Your task to perform on an android device: Go to location settings Image 0: 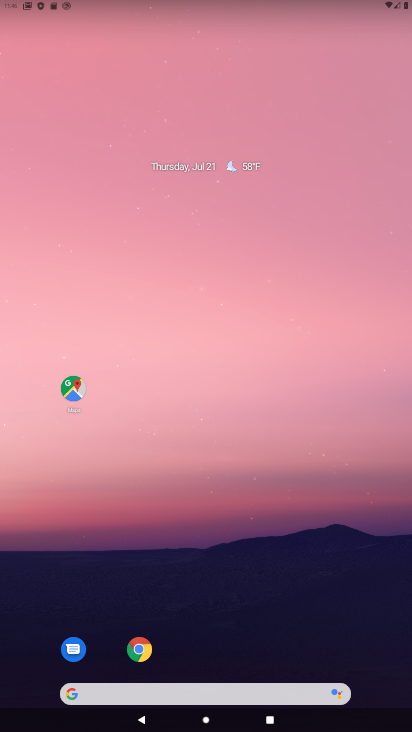
Step 0: drag from (207, 565) to (231, 20)
Your task to perform on an android device: Go to location settings Image 1: 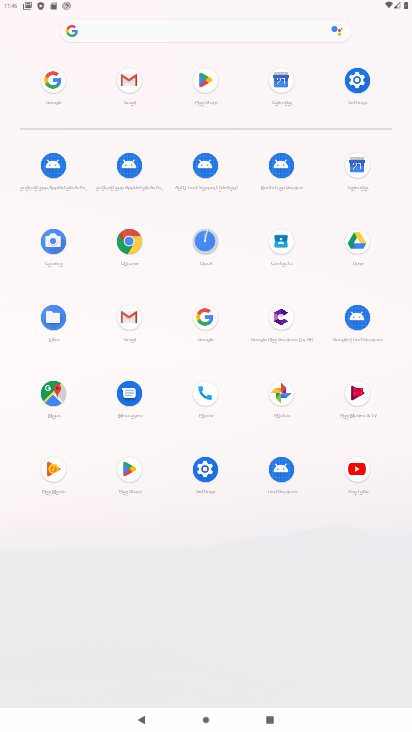
Step 1: click (360, 80)
Your task to perform on an android device: Go to location settings Image 2: 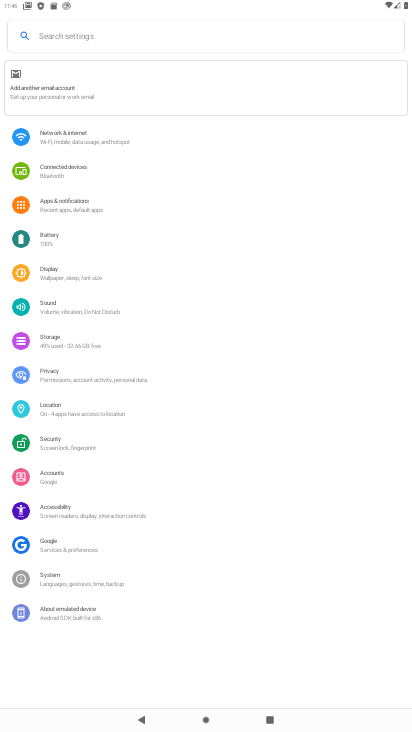
Step 2: click (83, 410)
Your task to perform on an android device: Go to location settings Image 3: 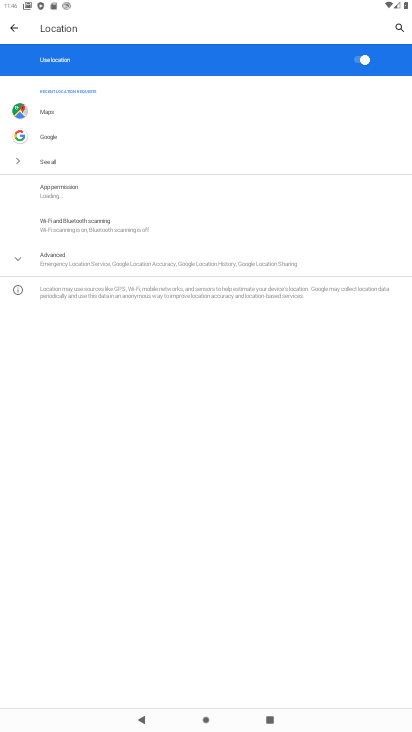
Step 3: task complete